Your task to perform on an android device: set an alarm Image 0: 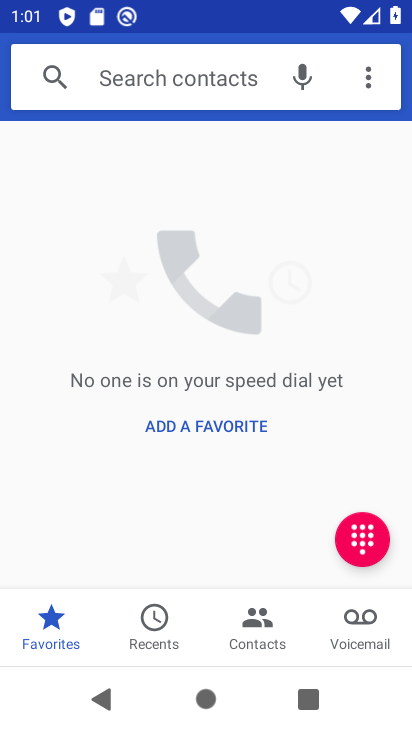
Step 0: press home button
Your task to perform on an android device: set an alarm Image 1: 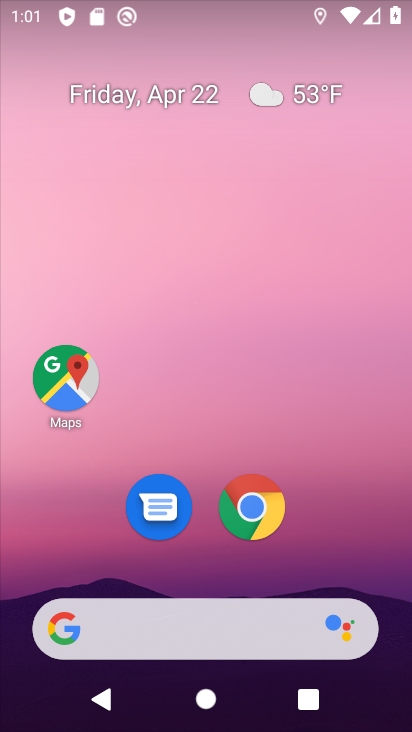
Step 1: drag from (338, 421) to (247, 101)
Your task to perform on an android device: set an alarm Image 2: 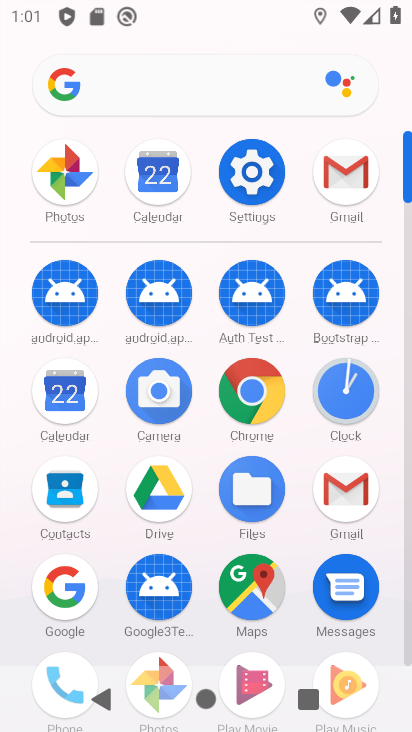
Step 2: click (358, 385)
Your task to perform on an android device: set an alarm Image 3: 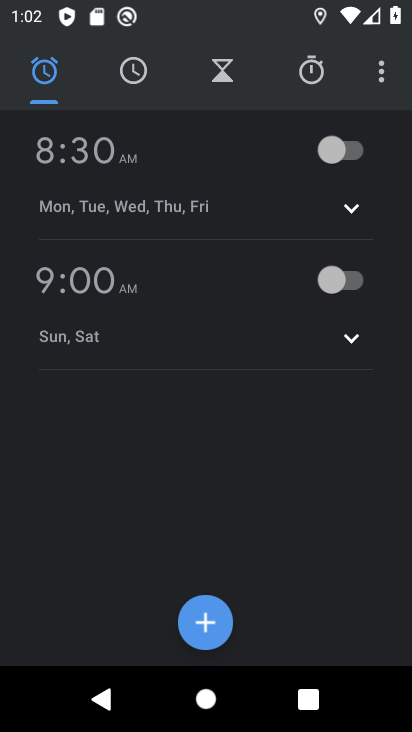
Step 3: click (199, 629)
Your task to perform on an android device: set an alarm Image 4: 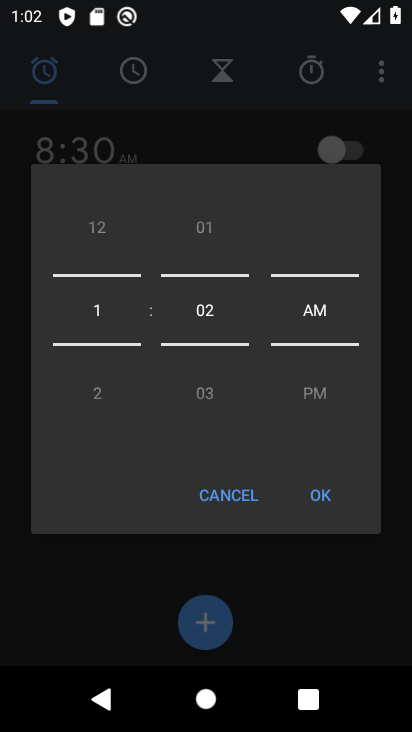
Step 4: click (324, 492)
Your task to perform on an android device: set an alarm Image 5: 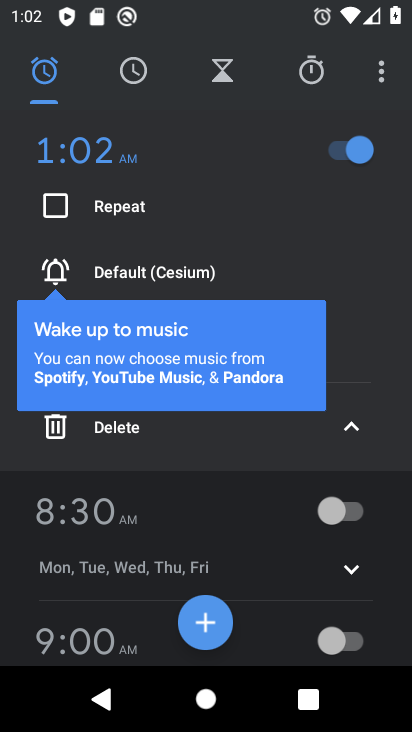
Step 5: click (354, 437)
Your task to perform on an android device: set an alarm Image 6: 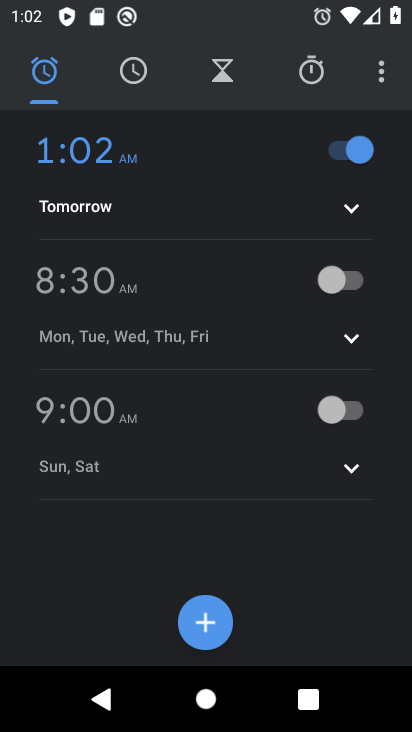
Step 6: task complete